Your task to perform on an android device: Open notification settings Image 0: 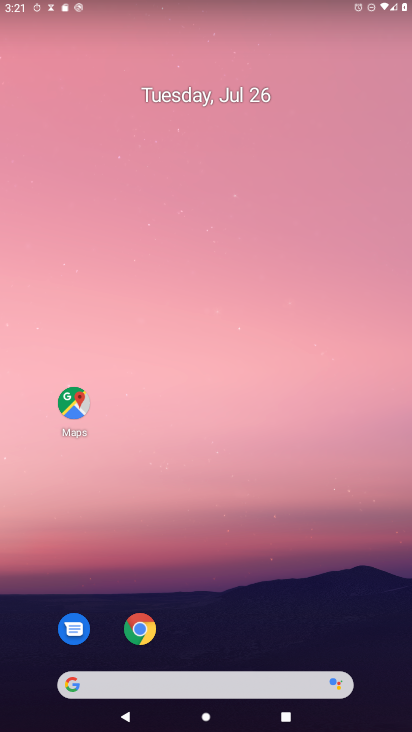
Step 0: drag from (235, 647) to (185, 82)
Your task to perform on an android device: Open notification settings Image 1: 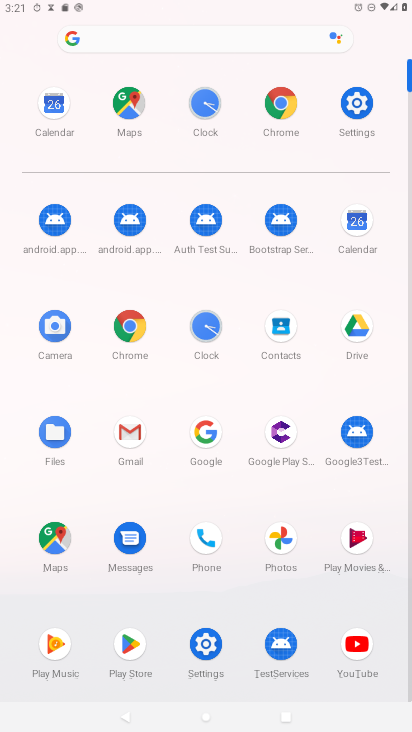
Step 1: click (350, 106)
Your task to perform on an android device: Open notification settings Image 2: 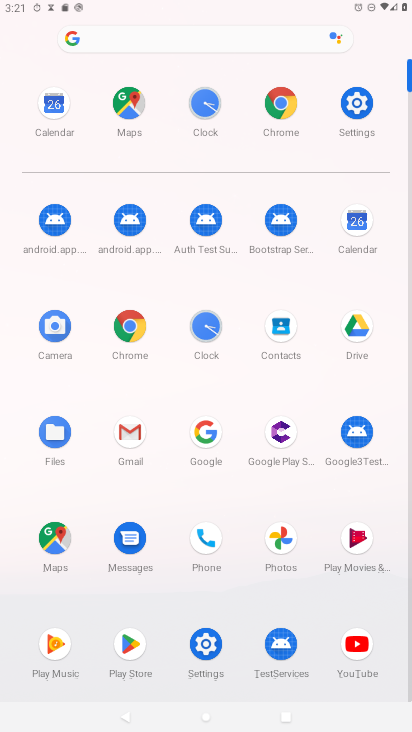
Step 2: click (352, 94)
Your task to perform on an android device: Open notification settings Image 3: 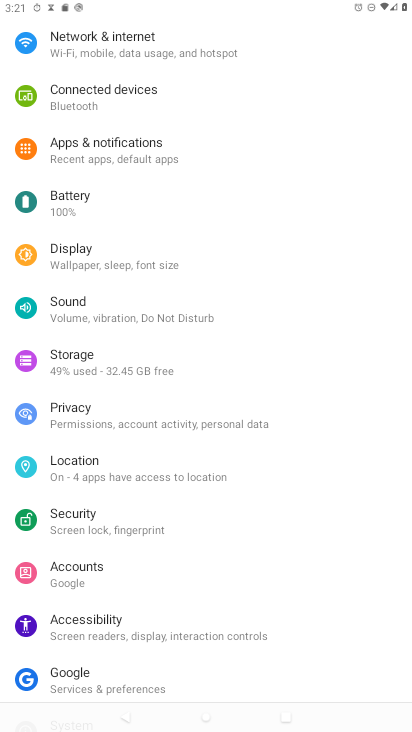
Step 3: click (143, 147)
Your task to perform on an android device: Open notification settings Image 4: 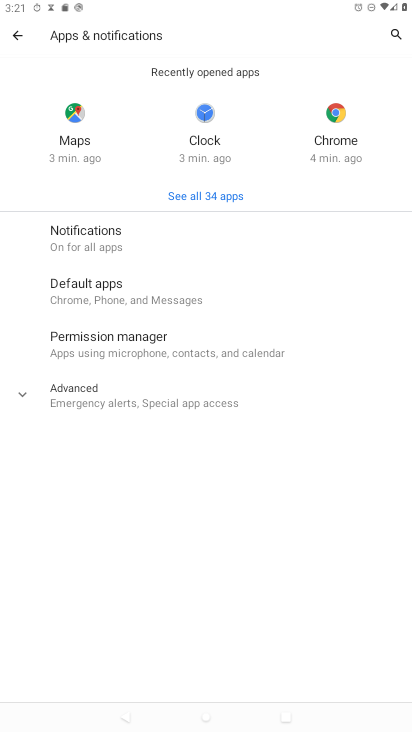
Step 4: task complete